Your task to perform on an android device: Open Google Maps Image 0: 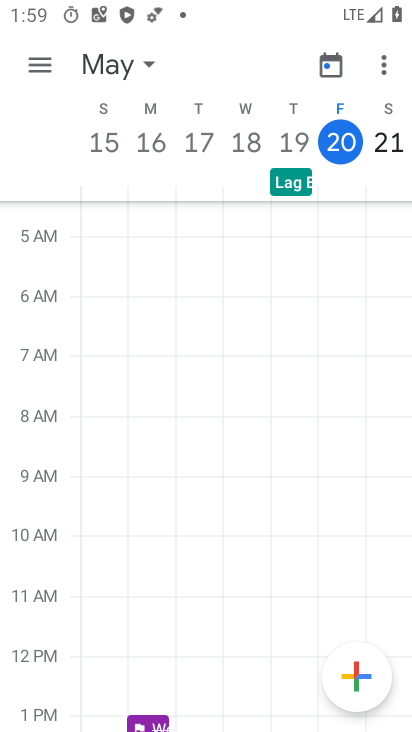
Step 0: press home button
Your task to perform on an android device: Open Google Maps Image 1: 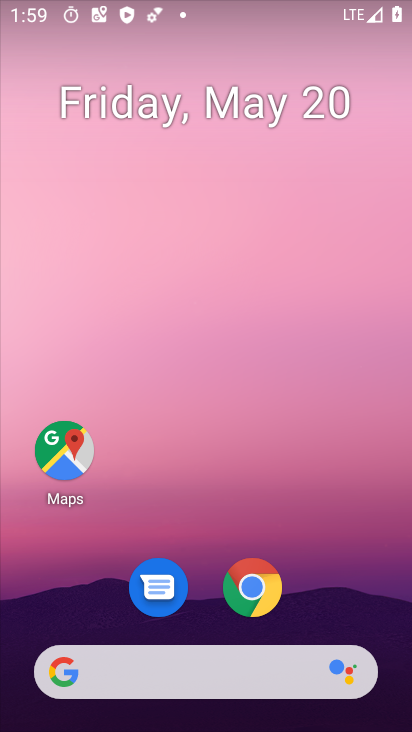
Step 1: click (55, 448)
Your task to perform on an android device: Open Google Maps Image 2: 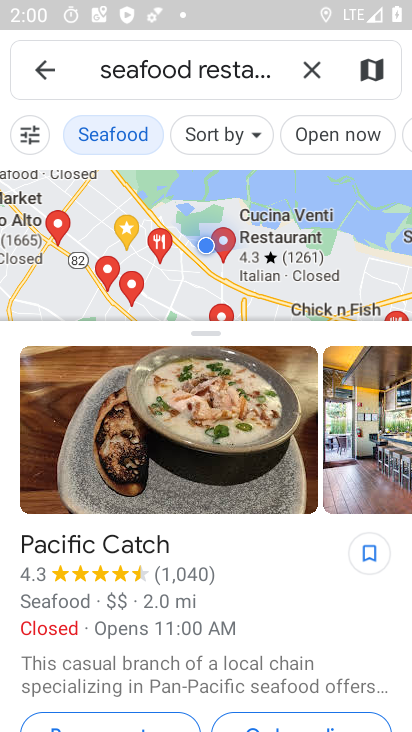
Step 2: task complete